Your task to perform on an android device: open device folders in google photos Image 0: 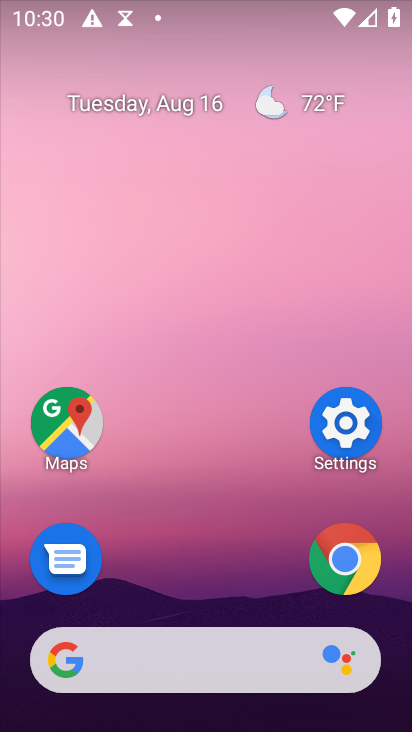
Step 0: press home button
Your task to perform on an android device: open device folders in google photos Image 1: 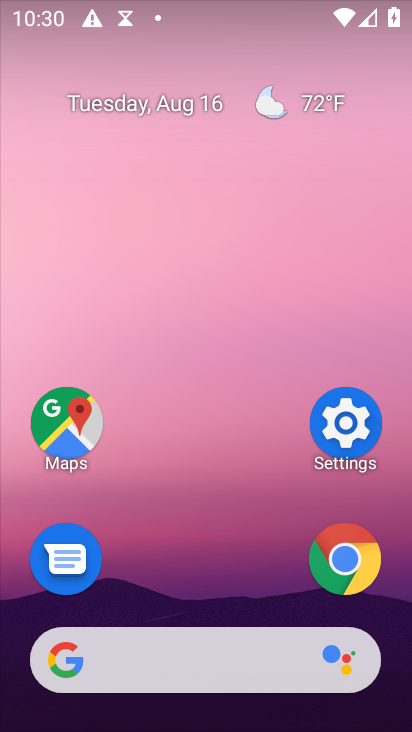
Step 1: drag from (181, 619) to (302, 50)
Your task to perform on an android device: open device folders in google photos Image 2: 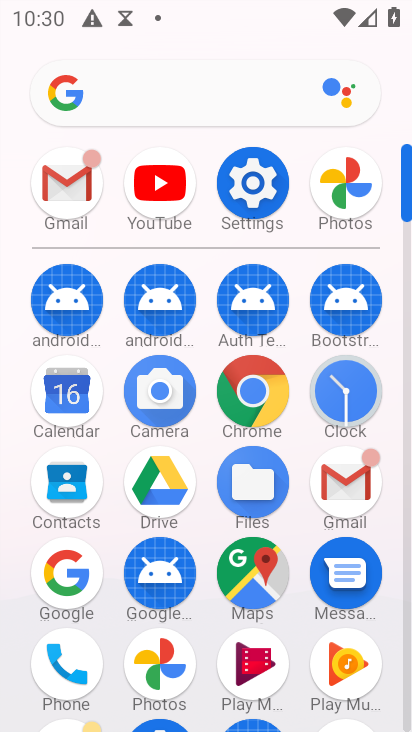
Step 2: click (161, 667)
Your task to perform on an android device: open device folders in google photos Image 3: 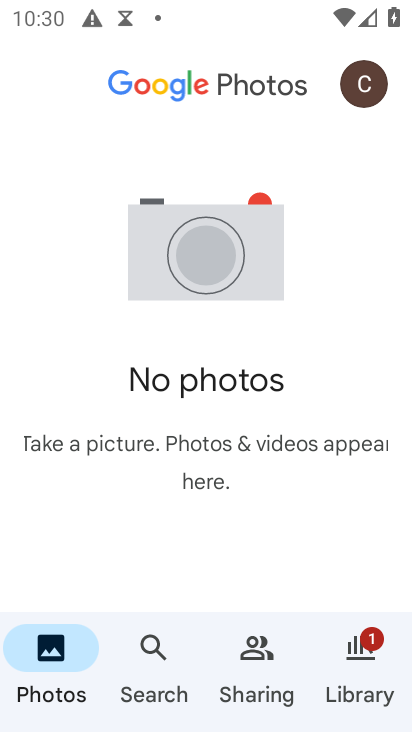
Step 3: click (377, 664)
Your task to perform on an android device: open device folders in google photos Image 4: 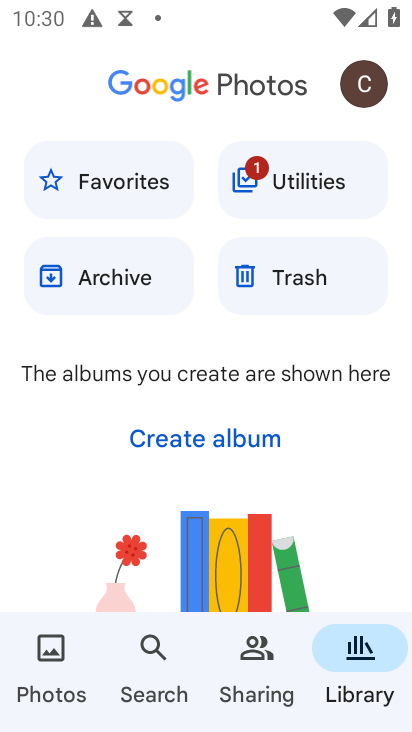
Step 4: task complete